Your task to perform on an android device: turn off notifications in google photos Image 0: 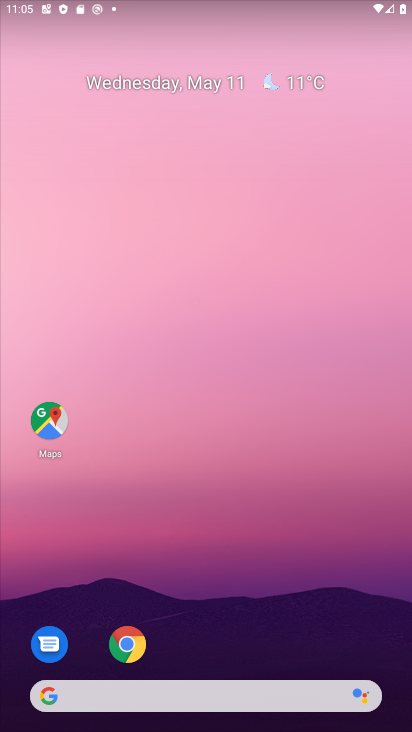
Step 0: drag from (218, 647) to (212, 23)
Your task to perform on an android device: turn off notifications in google photos Image 1: 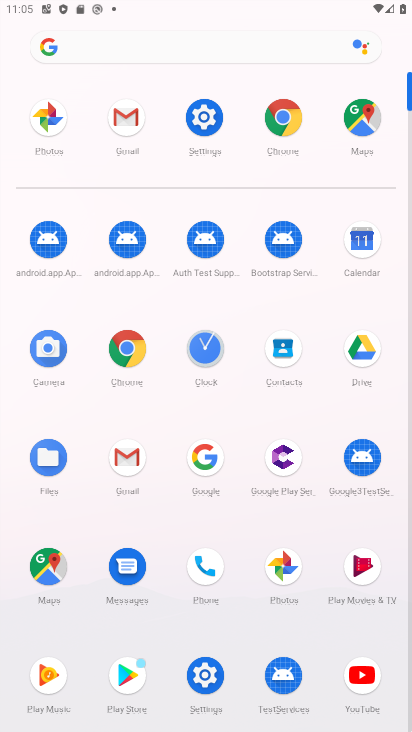
Step 1: click (278, 558)
Your task to perform on an android device: turn off notifications in google photos Image 2: 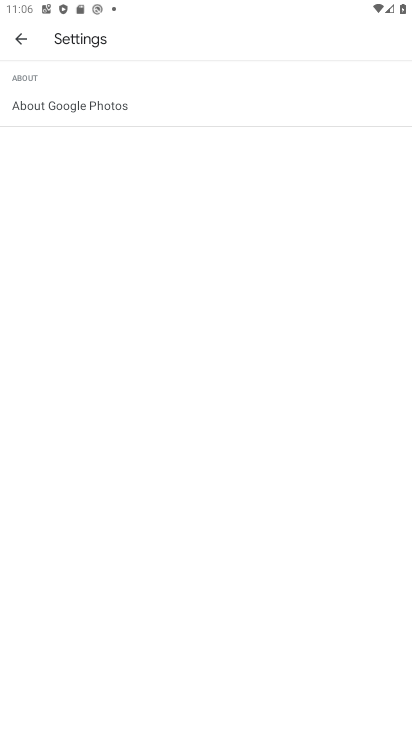
Step 2: press home button
Your task to perform on an android device: turn off notifications in google photos Image 3: 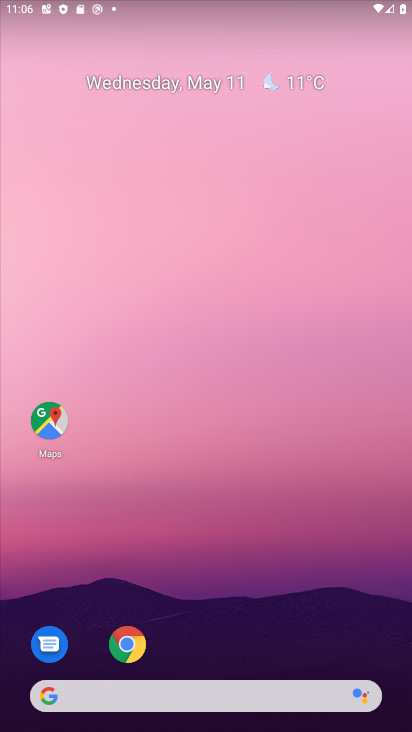
Step 3: drag from (205, 655) to (241, 33)
Your task to perform on an android device: turn off notifications in google photos Image 4: 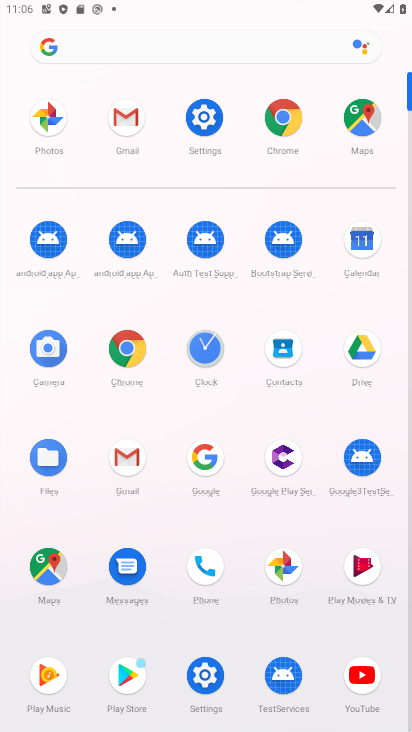
Step 4: click (278, 558)
Your task to perform on an android device: turn off notifications in google photos Image 5: 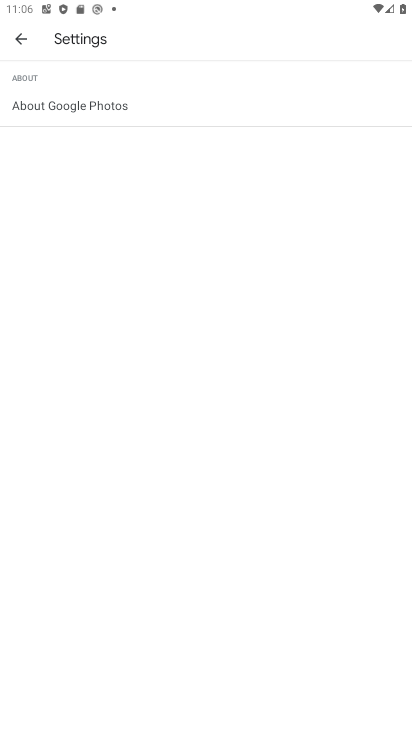
Step 5: click (19, 42)
Your task to perform on an android device: turn off notifications in google photos Image 6: 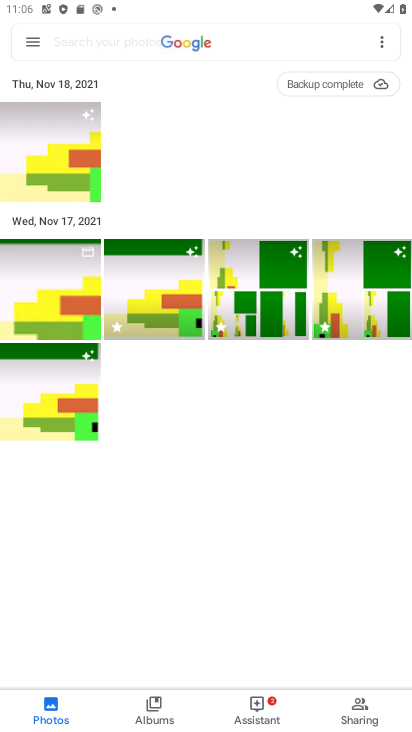
Step 6: click (30, 43)
Your task to perform on an android device: turn off notifications in google photos Image 7: 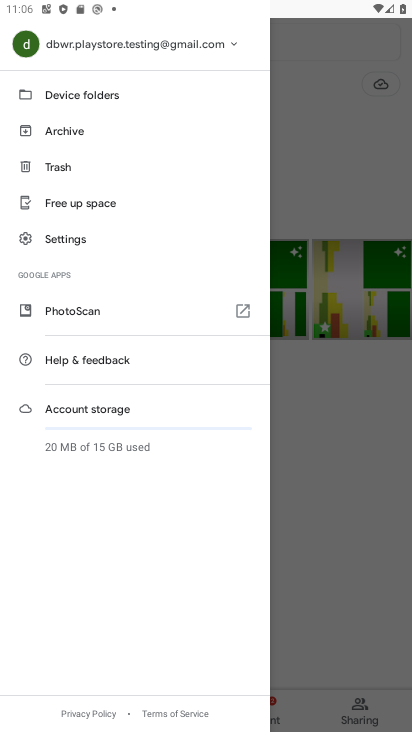
Step 7: click (93, 235)
Your task to perform on an android device: turn off notifications in google photos Image 8: 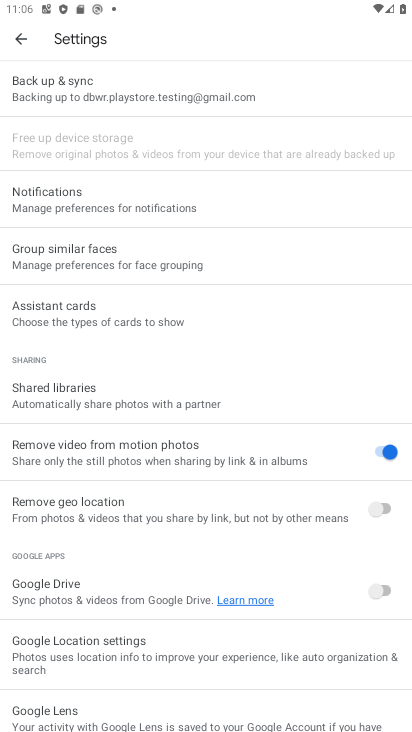
Step 8: click (98, 194)
Your task to perform on an android device: turn off notifications in google photos Image 9: 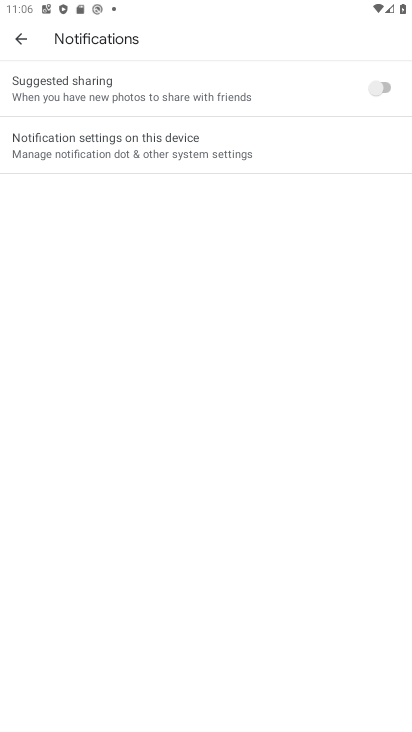
Step 9: click (221, 155)
Your task to perform on an android device: turn off notifications in google photos Image 10: 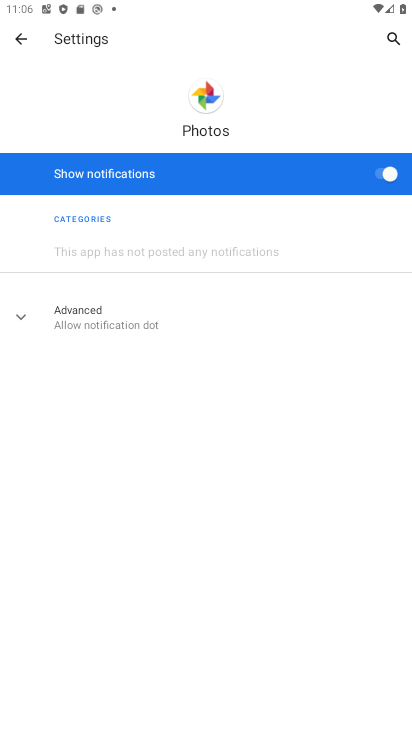
Step 10: click (384, 176)
Your task to perform on an android device: turn off notifications in google photos Image 11: 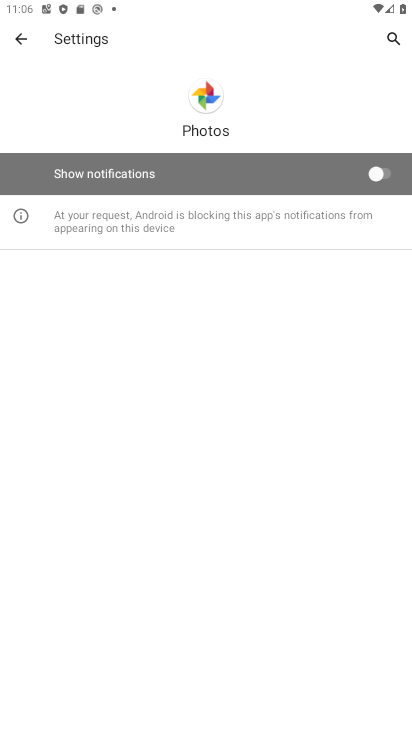
Step 11: task complete